Your task to perform on an android device: Open Google Image 0: 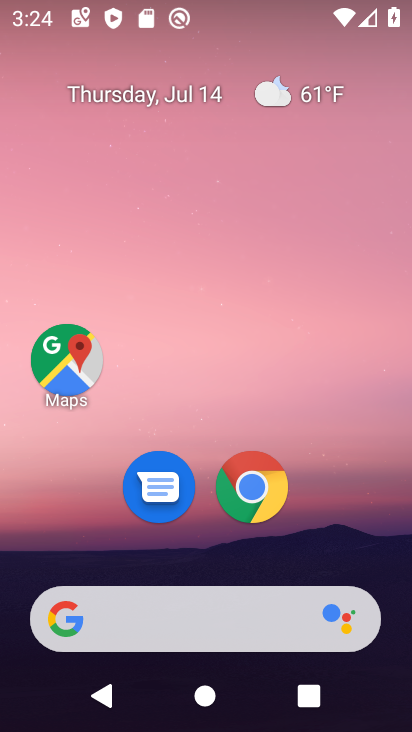
Step 0: drag from (213, 475) to (227, 72)
Your task to perform on an android device: Open Google Image 1: 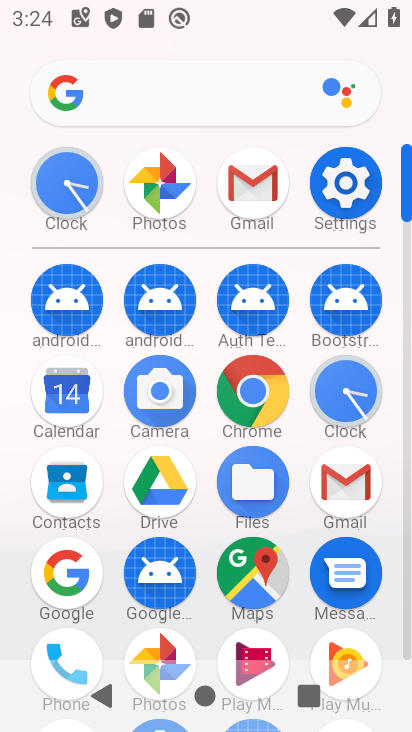
Step 1: click (64, 583)
Your task to perform on an android device: Open Google Image 2: 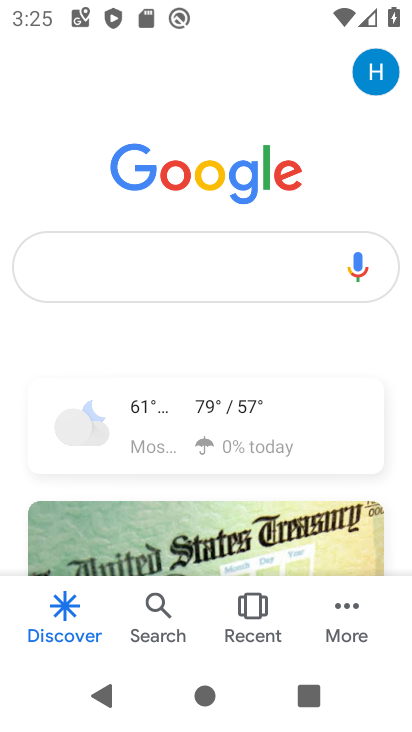
Step 2: task complete